Your task to perform on an android device: turn off notifications settings in the gmail app Image 0: 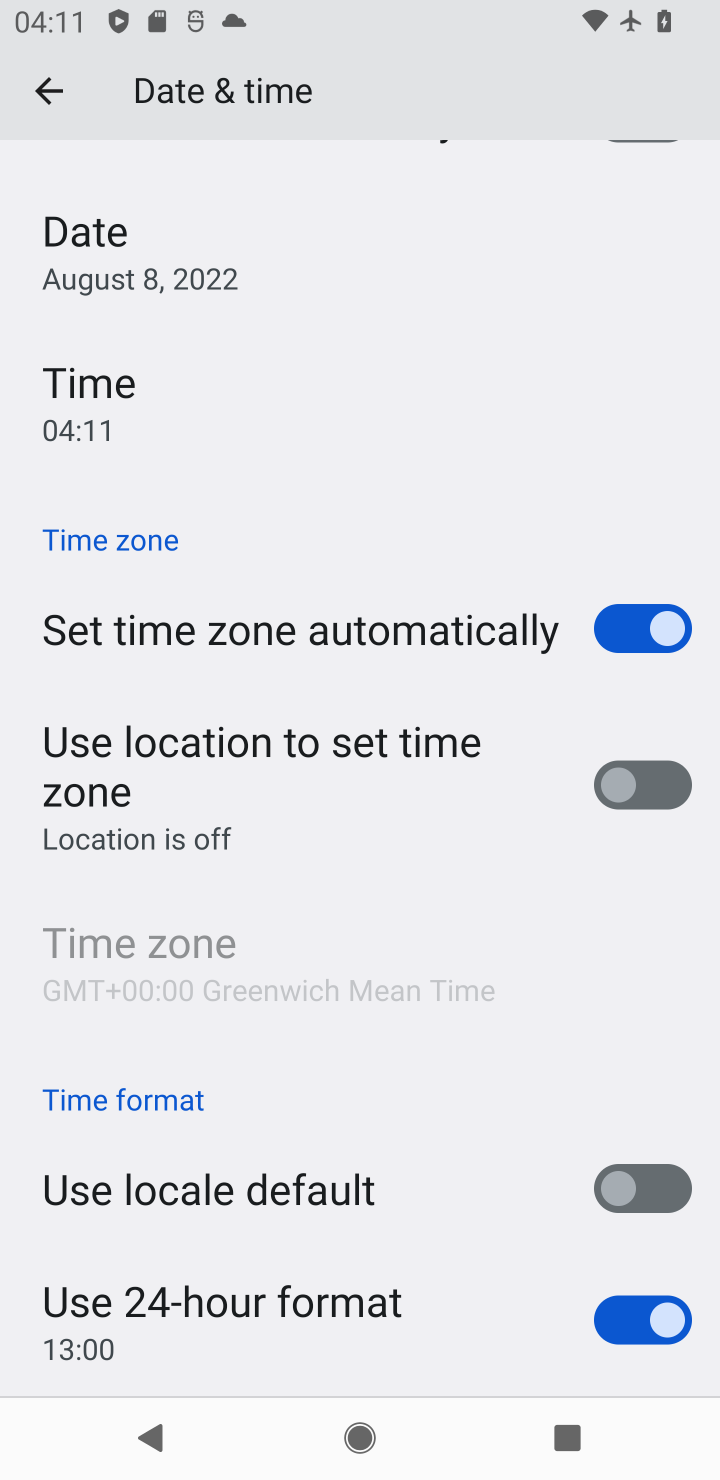
Step 0: press home button
Your task to perform on an android device: turn off notifications settings in the gmail app Image 1: 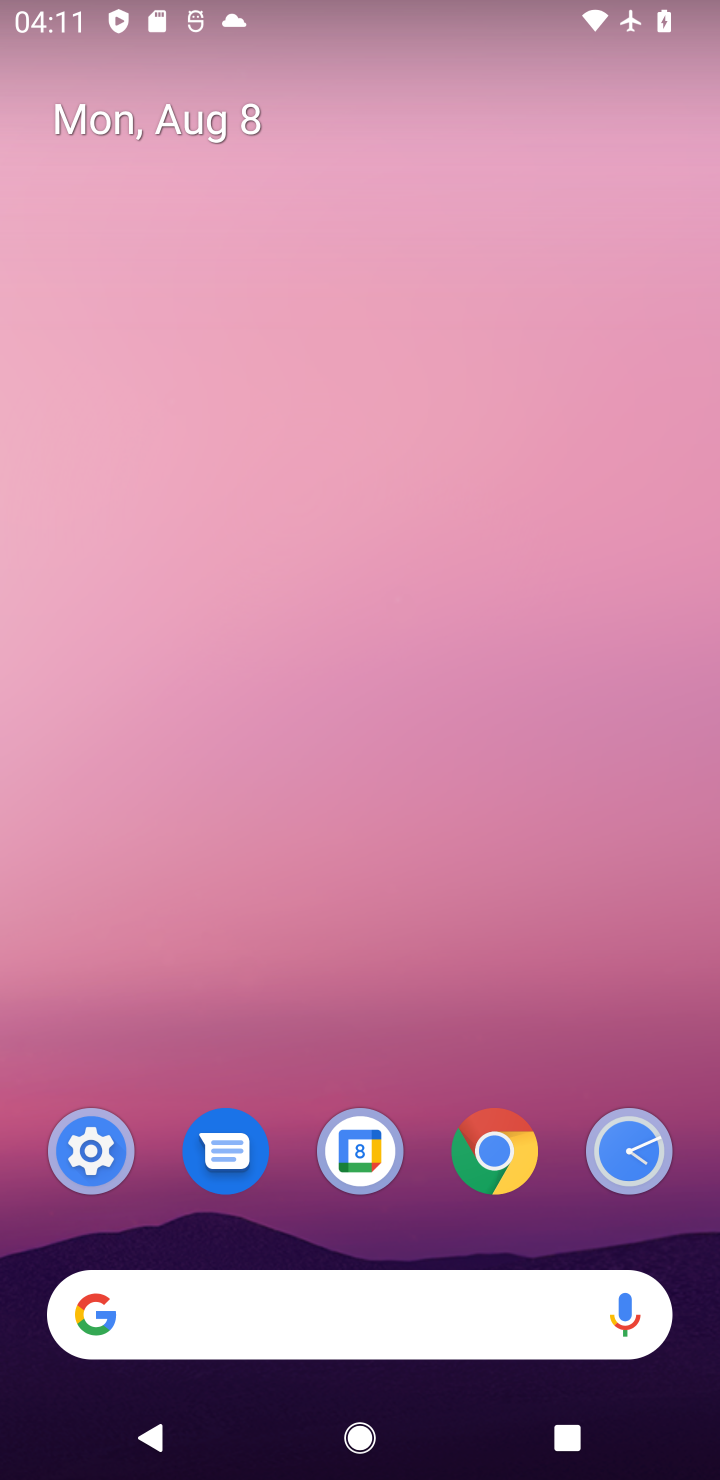
Step 1: drag from (382, 1046) to (345, 332)
Your task to perform on an android device: turn off notifications settings in the gmail app Image 2: 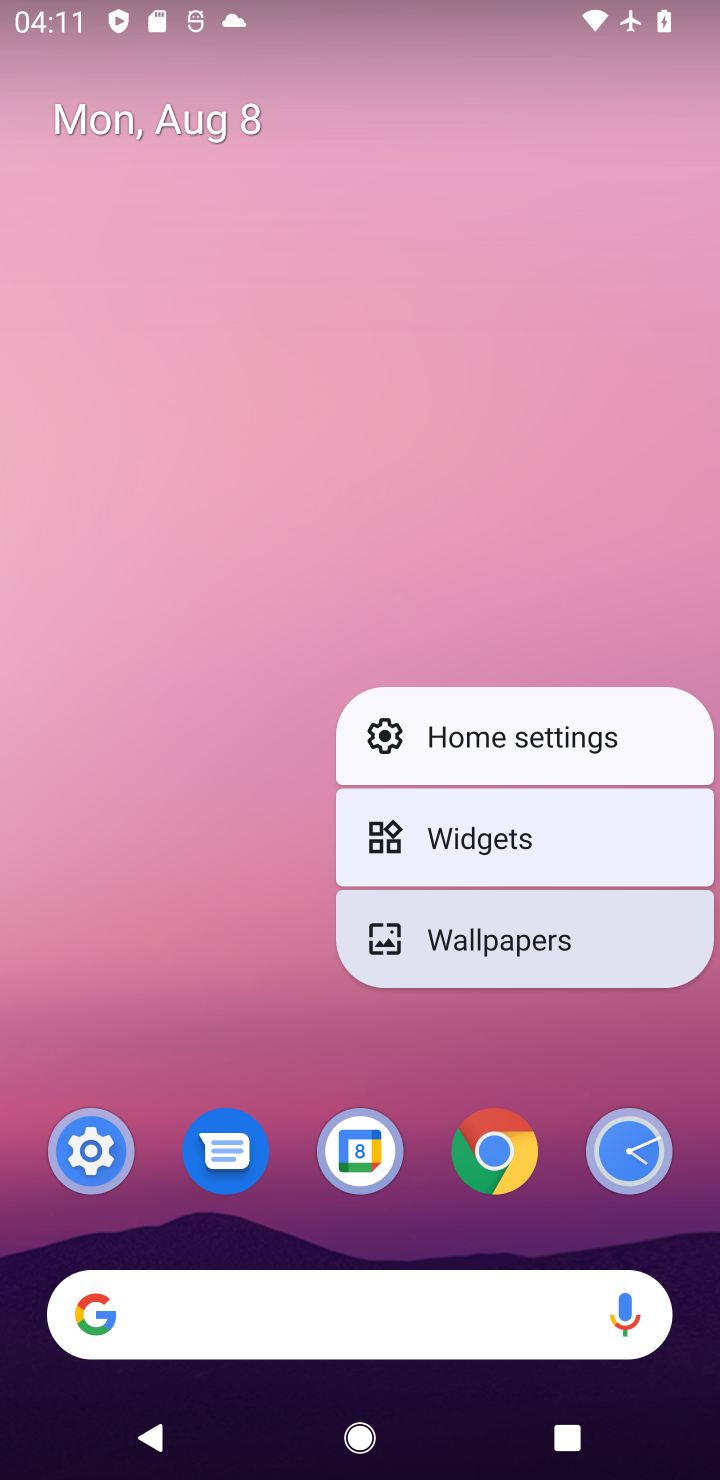
Step 2: click (173, 805)
Your task to perform on an android device: turn off notifications settings in the gmail app Image 3: 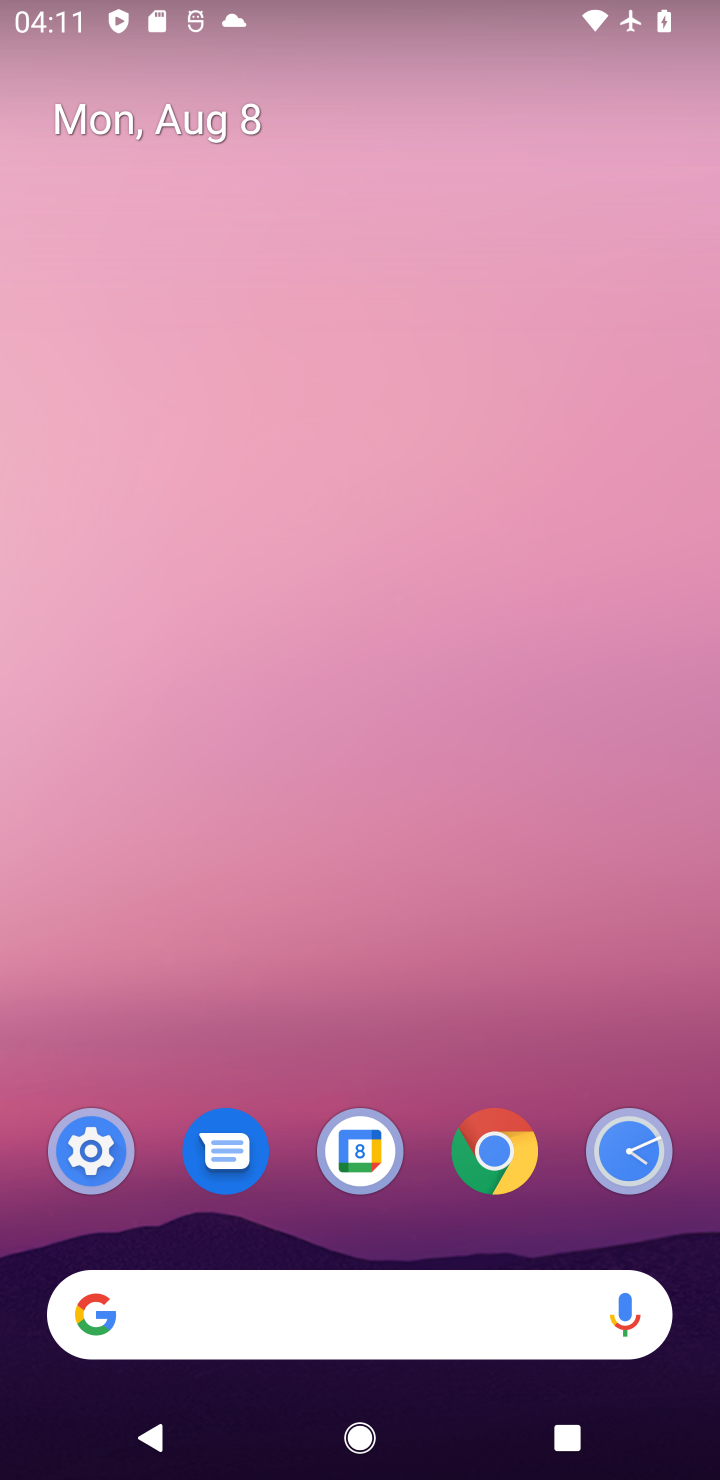
Step 3: drag from (326, 925) to (295, 162)
Your task to perform on an android device: turn off notifications settings in the gmail app Image 4: 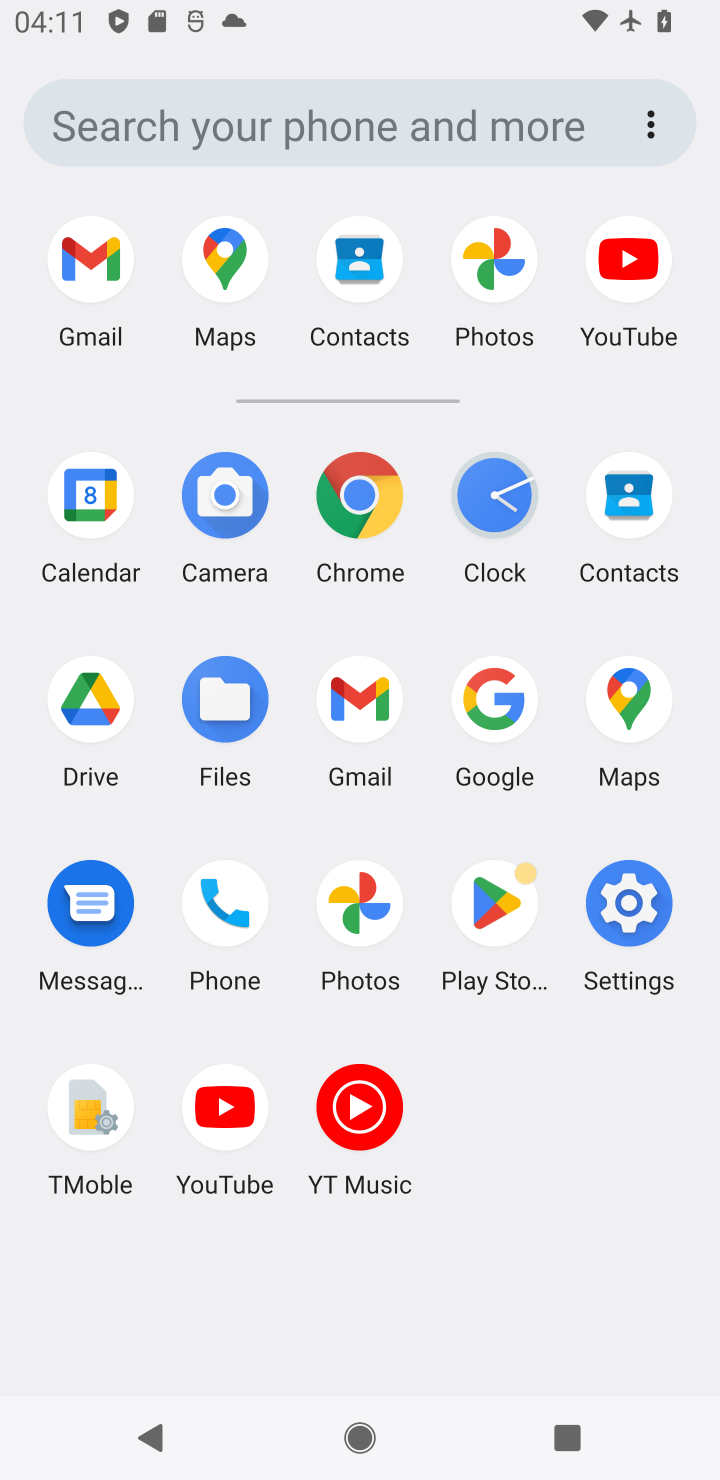
Step 4: click (136, 296)
Your task to perform on an android device: turn off notifications settings in the gmail app Image 5: 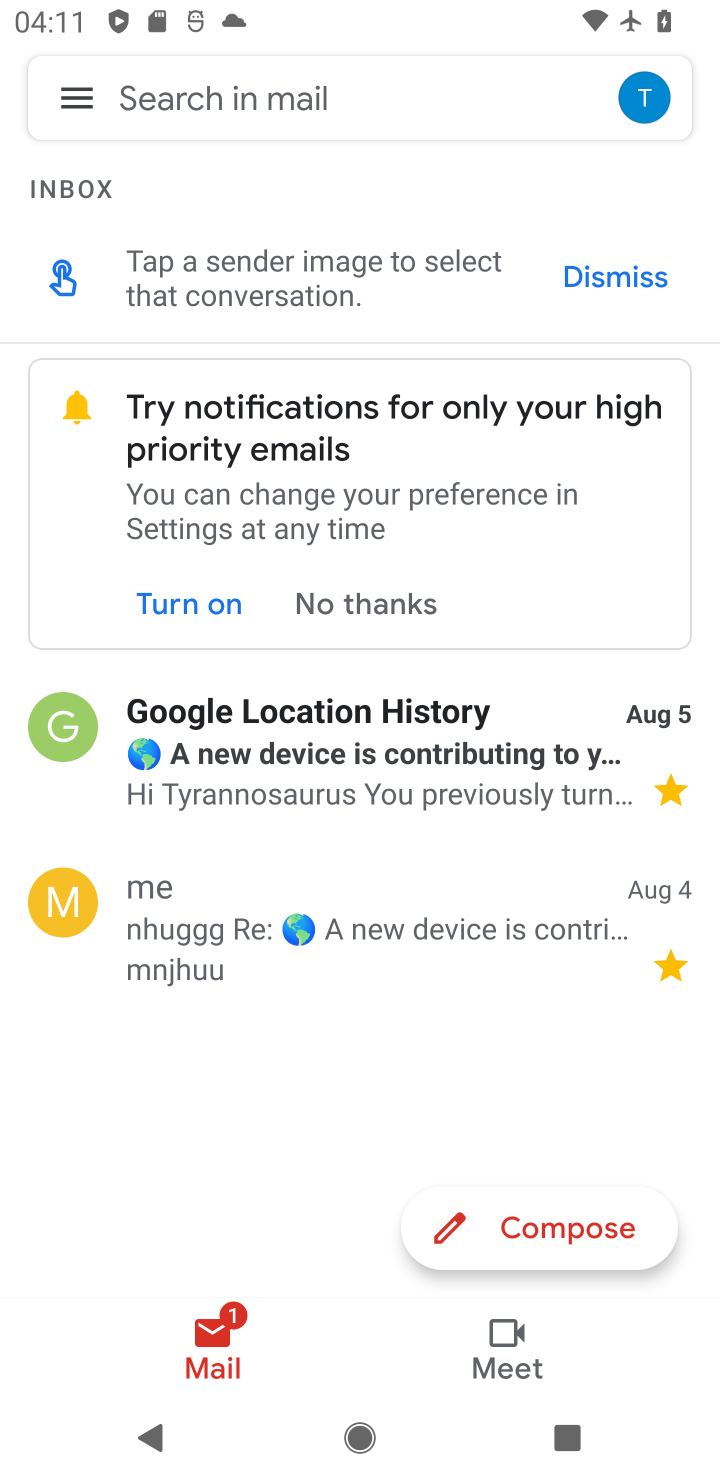
Step 5: click (75, 100)
Your task to perform on an android device: turn off notifications settings in the gmail app Image 6: 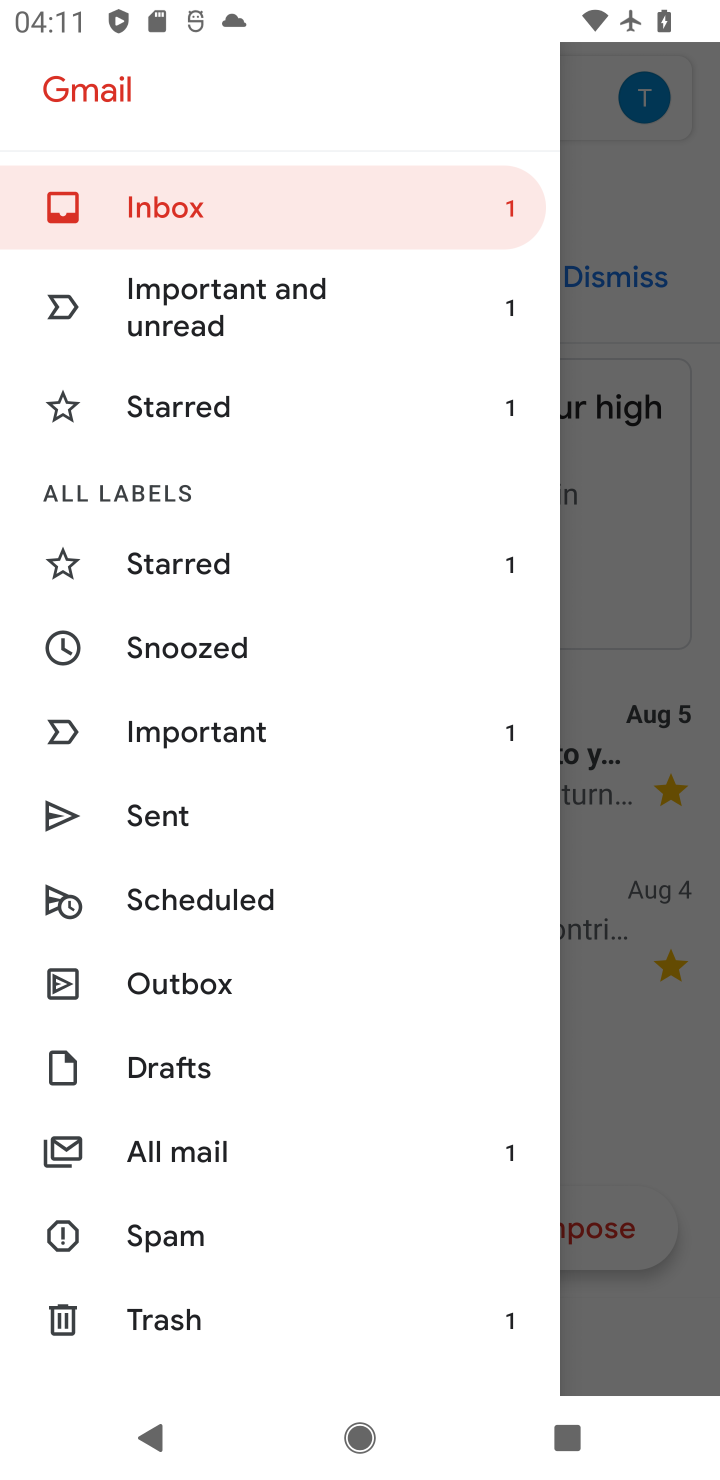
Step 6: drag from (188, 1329) to (255, 682)
Your task to perform on an android device: turn off notifications settings in the gmail app Image 7: 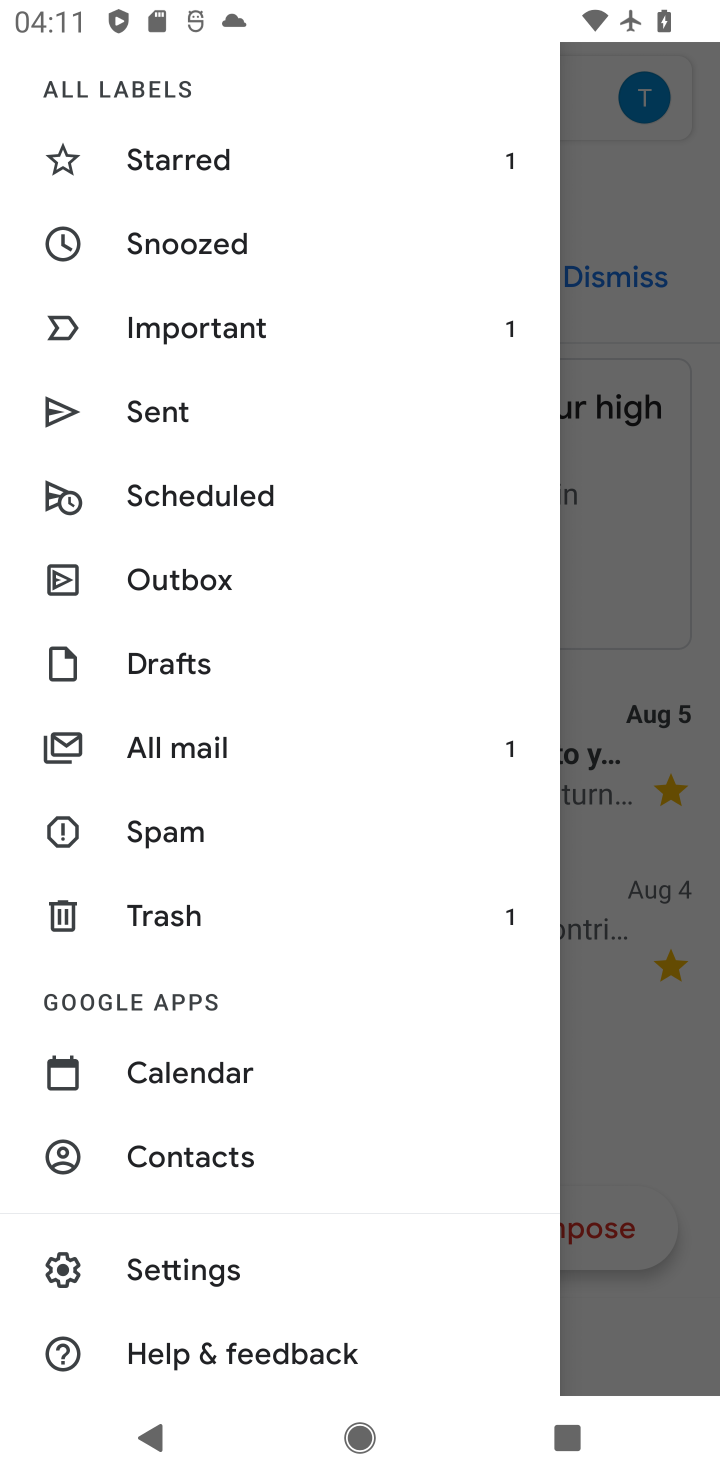
Step 7: click (183, 1265)
Your task to perform on an android device: turn off notifications settings in the gmail app Image 8: 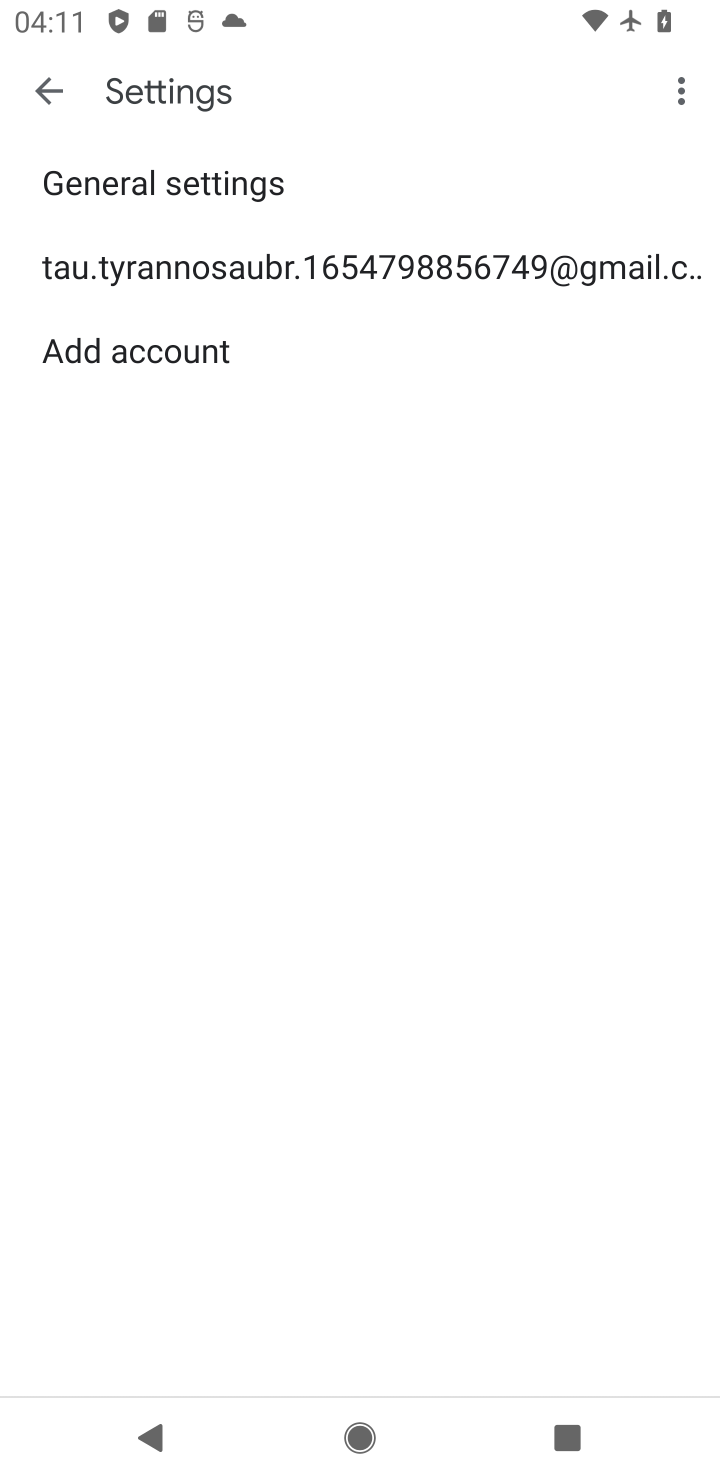
Step 8: click (333, 271)
Your task to perform on an android device: turn off notifications settings in the gmail app Image 9: 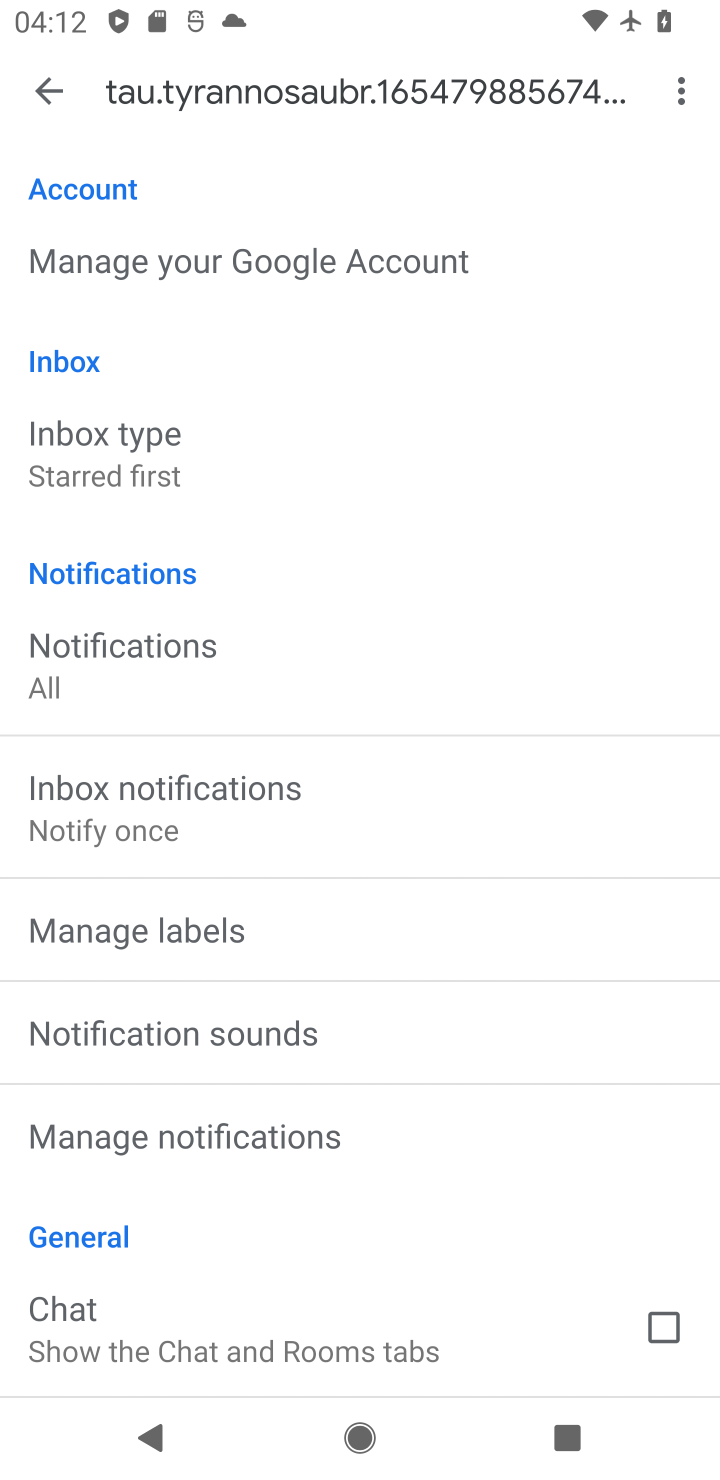
Step 9: click (306, 1123)
Your task to perform on an android device: turn off notifications settings in the gmail app Image 10: 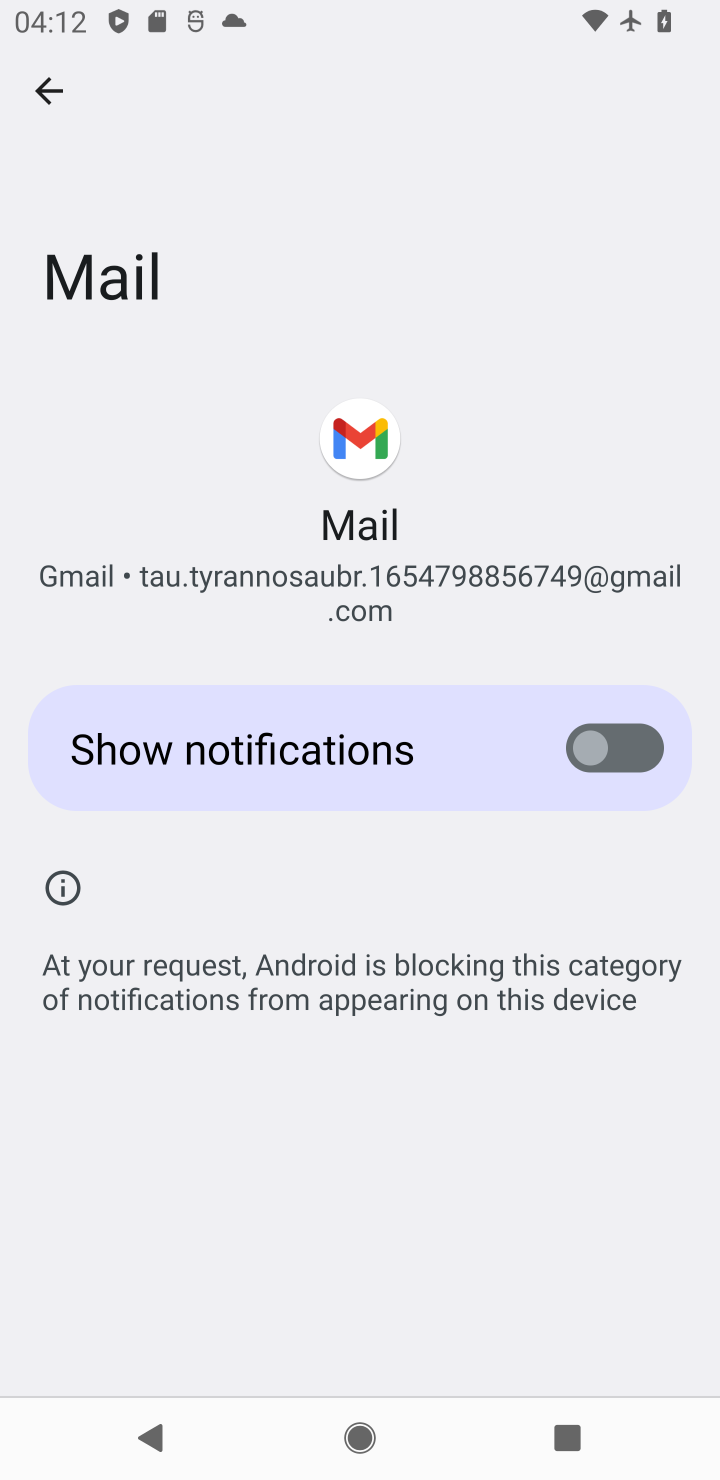
Step 10: task complete